Your task to perform on an android device: uninstall "Nova Launcher" Image 0: 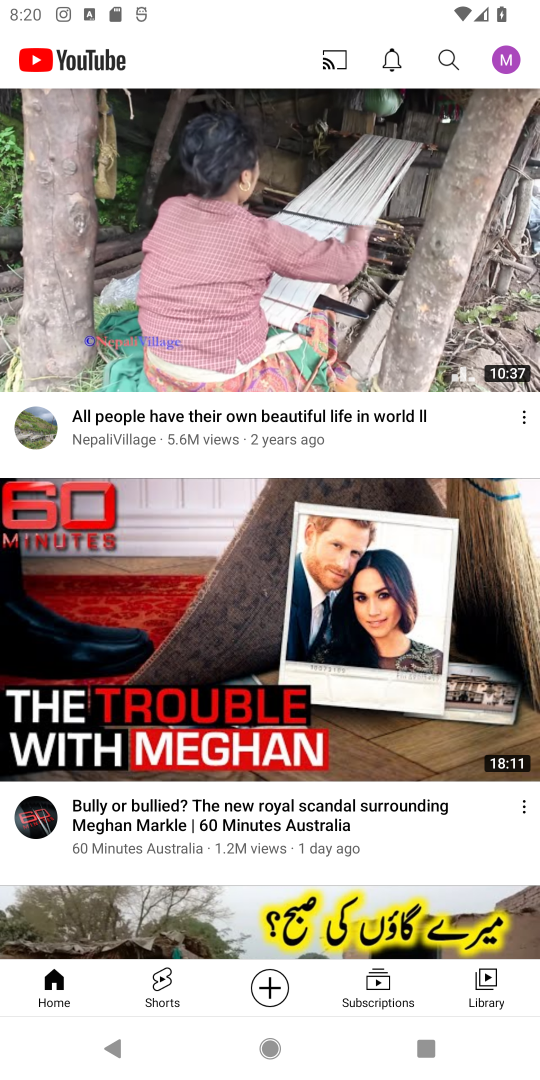
Step 0: press home button
Your task to perform on an android device: uninstall "Nova Launcher" Image 1: 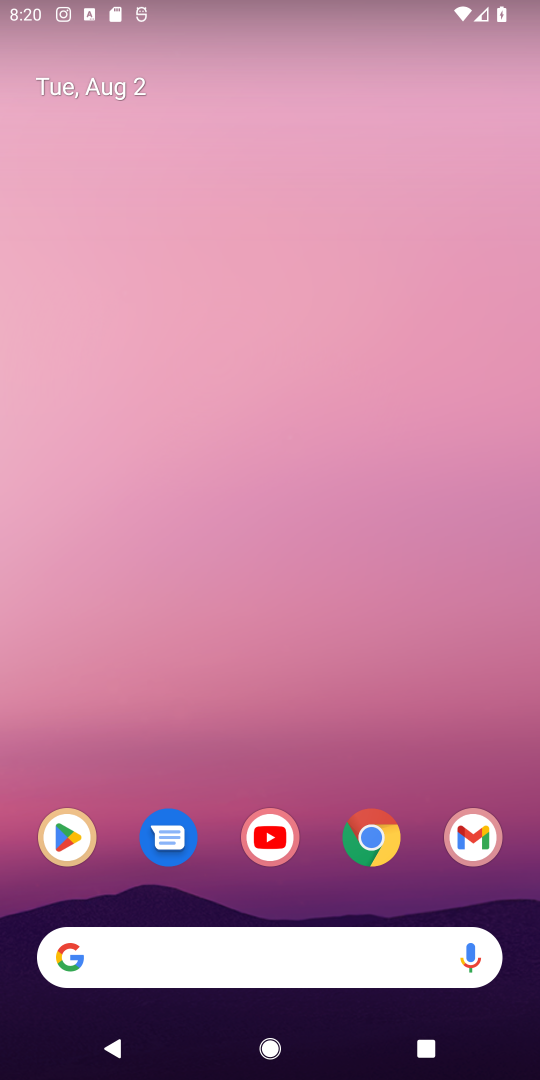
Step 1: click (63, 833)
Your task to perform on an android device: uninstall "Nova Launcher" Image 2: 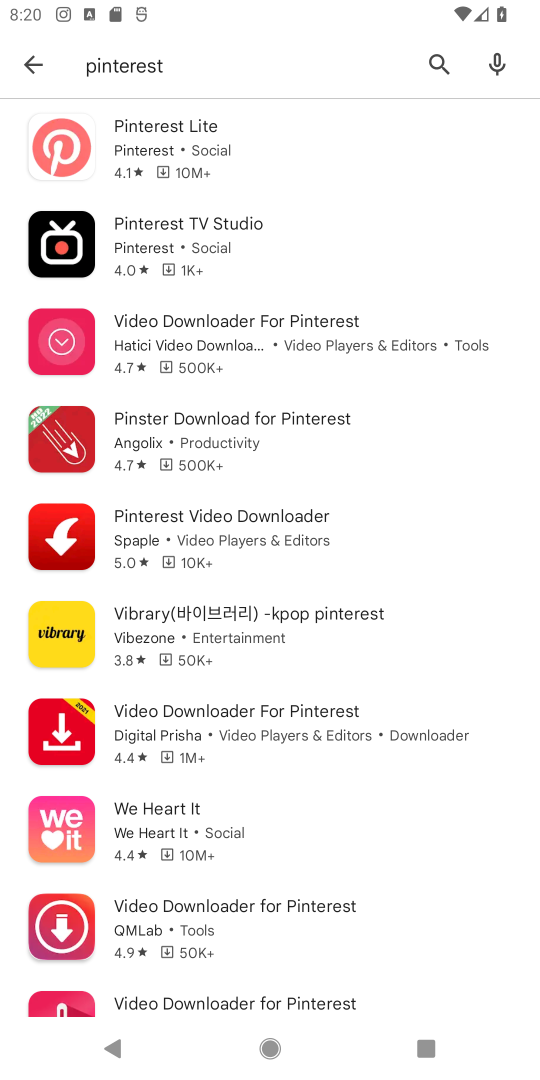
Step 2: click (429, 64)
Your task to perform on an android device: uninstall "Nova Launcher" Image 3: 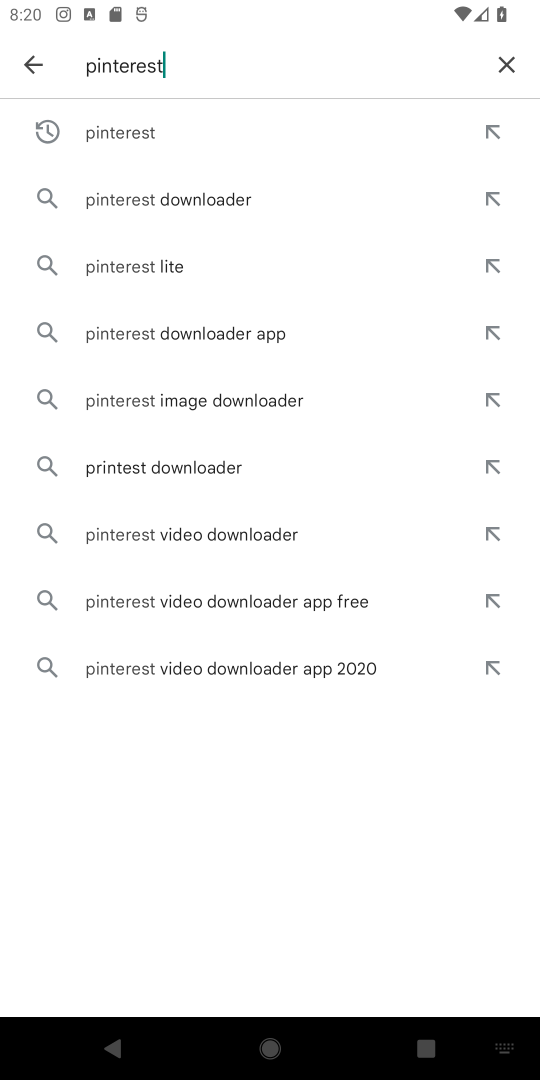
Step 3: click (515, 52)
Your task to perform on an android device: uninstall "Nova Launcher" Image 4: 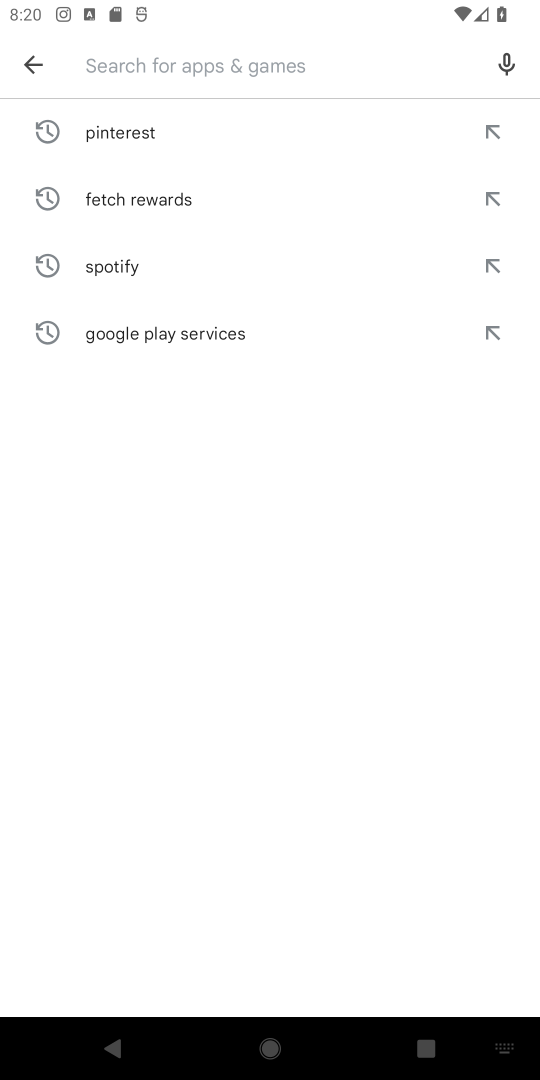
Step 4: type "Nova Launcher"
Your task to perform on an android device: uninstall "Nova Launcher" Image 5: 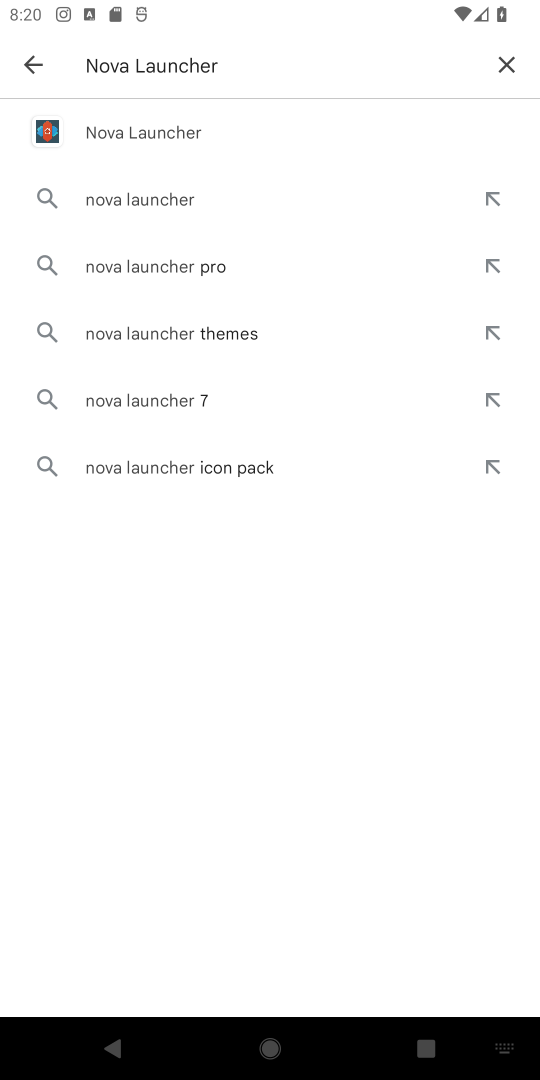
Step 5: click (75, 137)
Your task to perform on an android device: uninstall "Nova Launcher" Image 6: 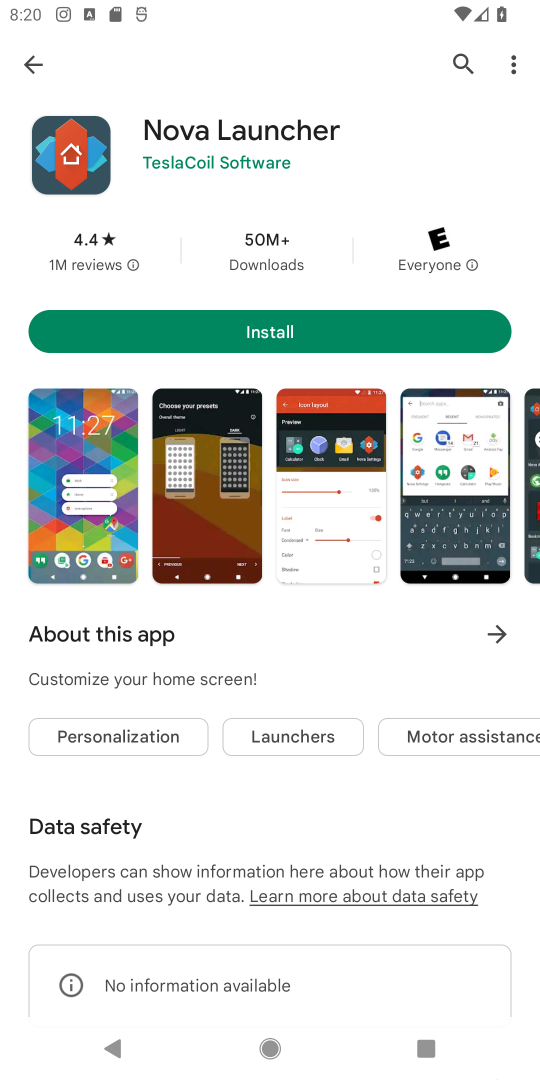
Step 6: task complete